Your task to perform on an android device: turn on translation in the chrome app Image 0: 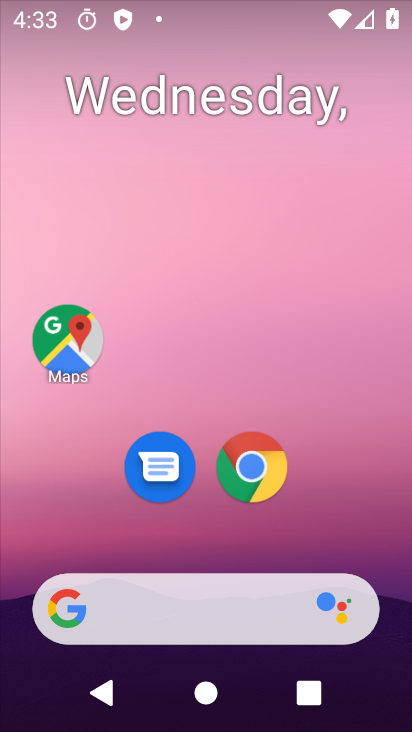
Step 0: click (251, 478)
Your task to perform on an android device: turn on translation in the chrome app Image 1: 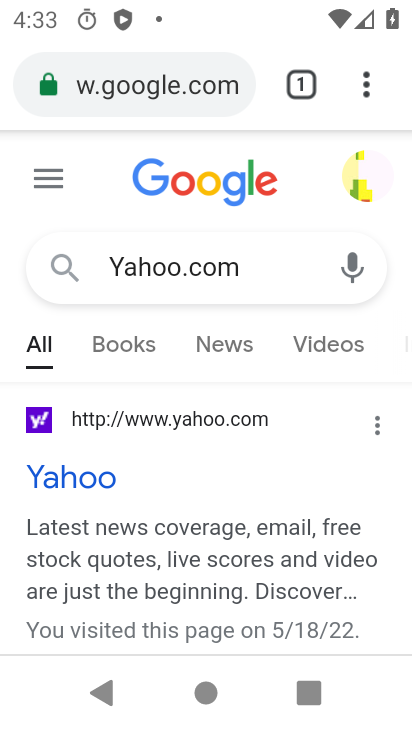
Step 1: click (358, 87)
Your task to perform on an android device: turn on translation in the chrome app Image 2: 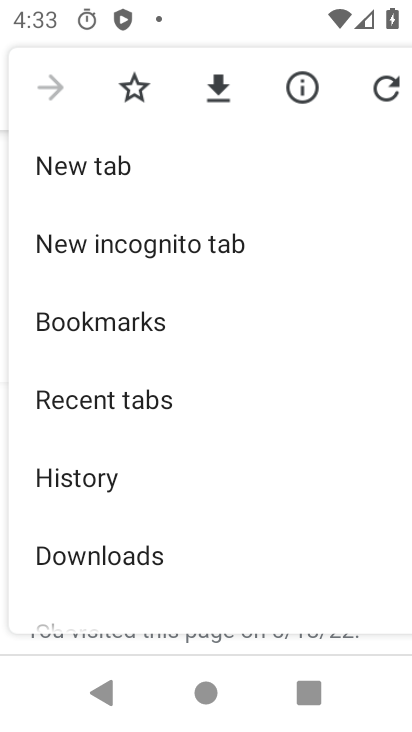
Step 2: drag from (245, 595) to (231, 131)
Your task to perform on an android device: turn on translation in the chrome app Image 3: 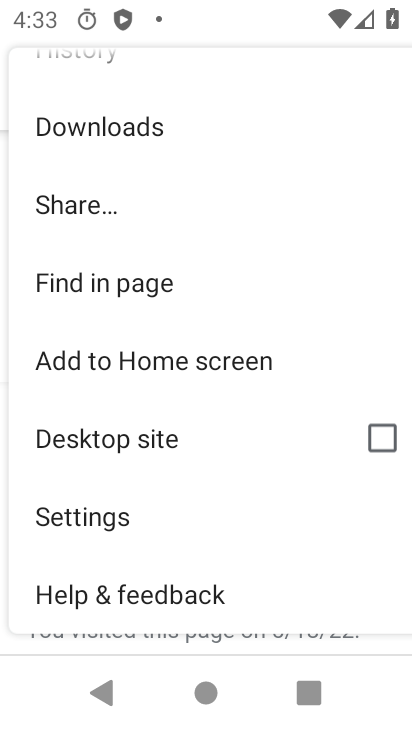
Step 3: click (61, 522)
Your task to perform on an android device: turn on translation in the chrome app Image 4: 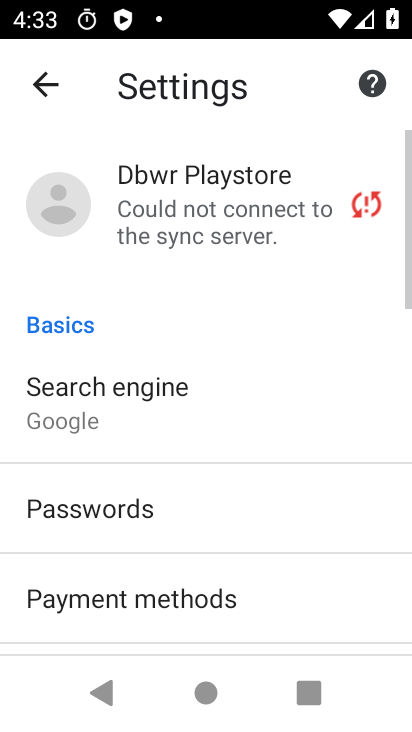
Step 4: drag from (327, 603) to (342, 111)
Your task to perform on an android device: turn on translation in the chrome app Image 5: 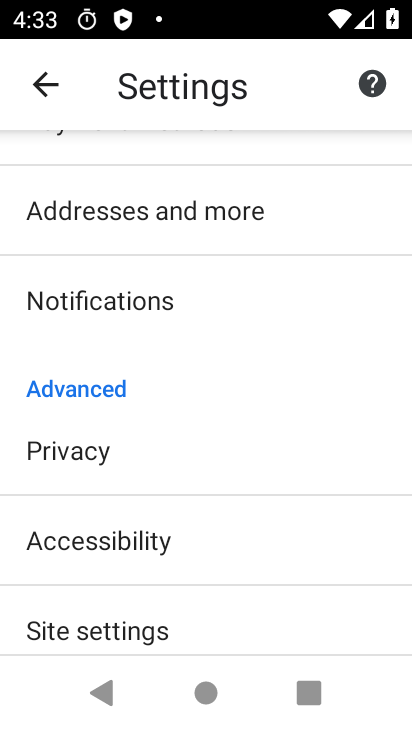
Step 5: drag from (275, 605) to (240, 232)
Your task to perform on an android device: turn on translation in the chrome app Image 6: 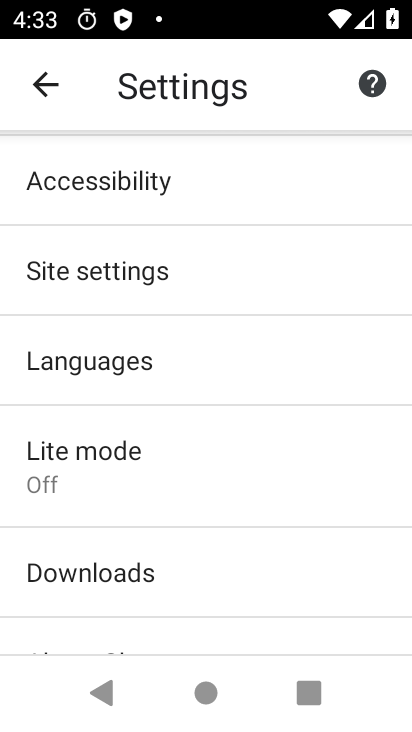
Step 6: click (81, 356)
Your task to perform on an android device: turn on translation in the chrome app Image 7: 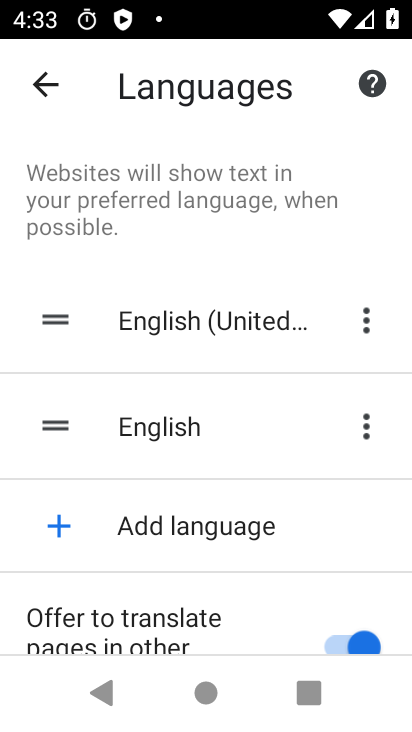
Step 7: task complete